Your task to perform on an android device: Search for usb-c to usb-b on amazon, select the first entry, and add it to the cart. Image 0: 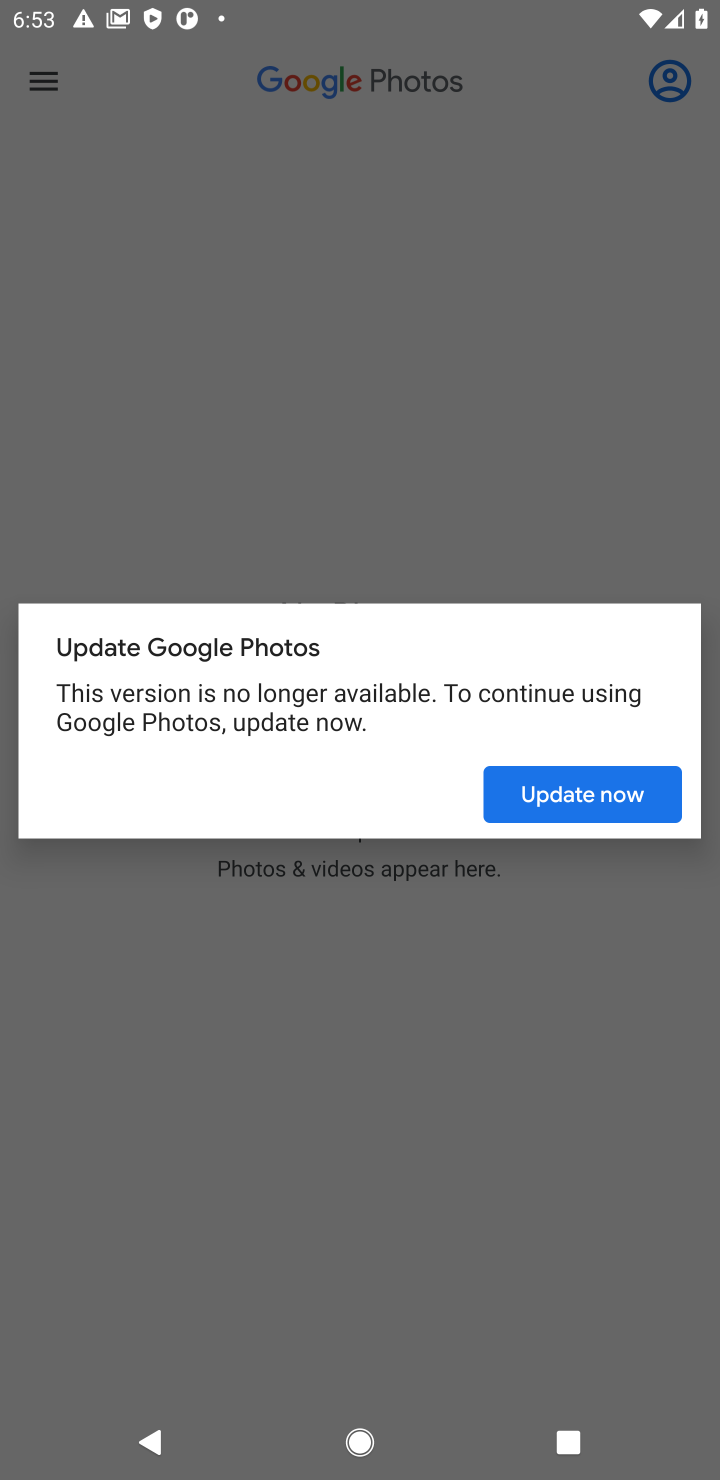
Step 0: press home button
Your task to perform on an android device: Search for usb-c to usb-b on amazon, select the first entry, and add it to the cart. Image 1: 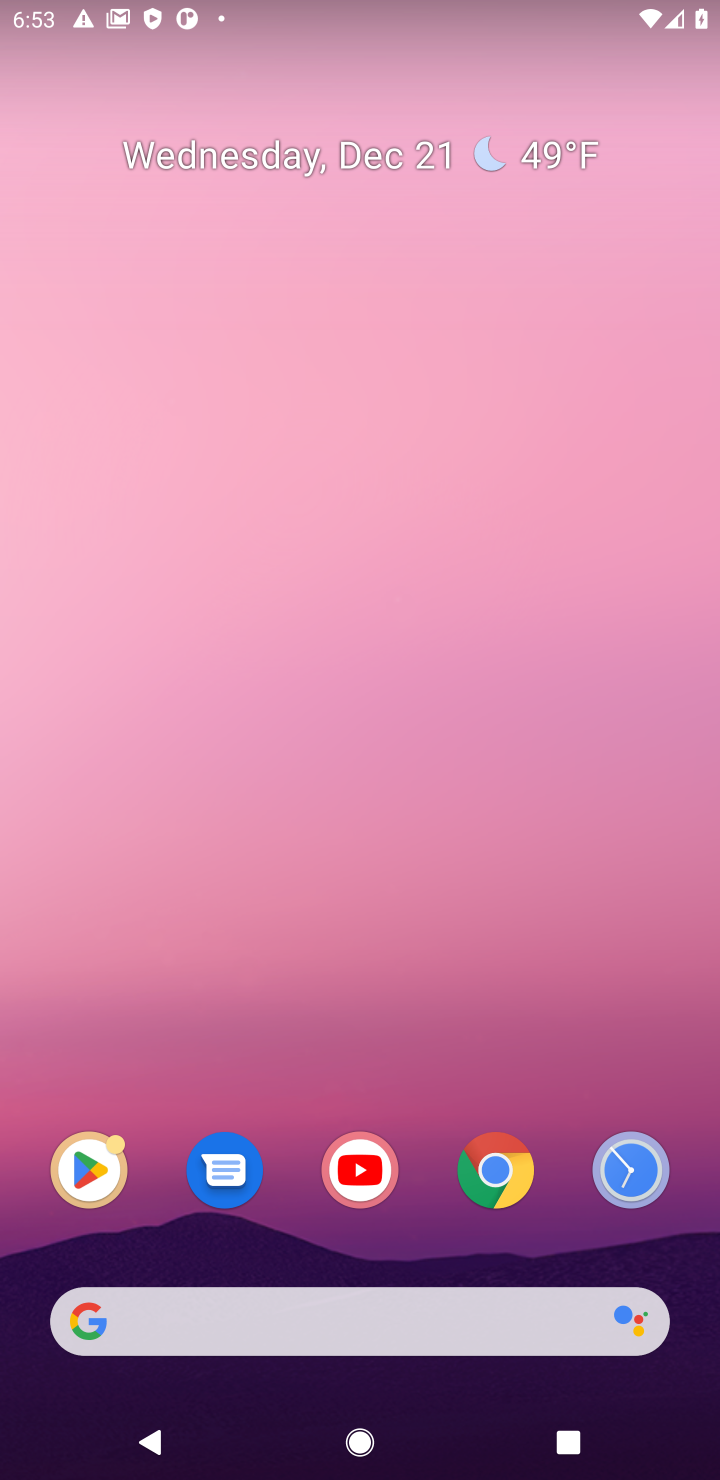
Step 1: click (497, 1176)
Your task to perform on an android device: Search for usb-c to usb-b on amazon, select the first entry, and add it to the cart. Image 2: 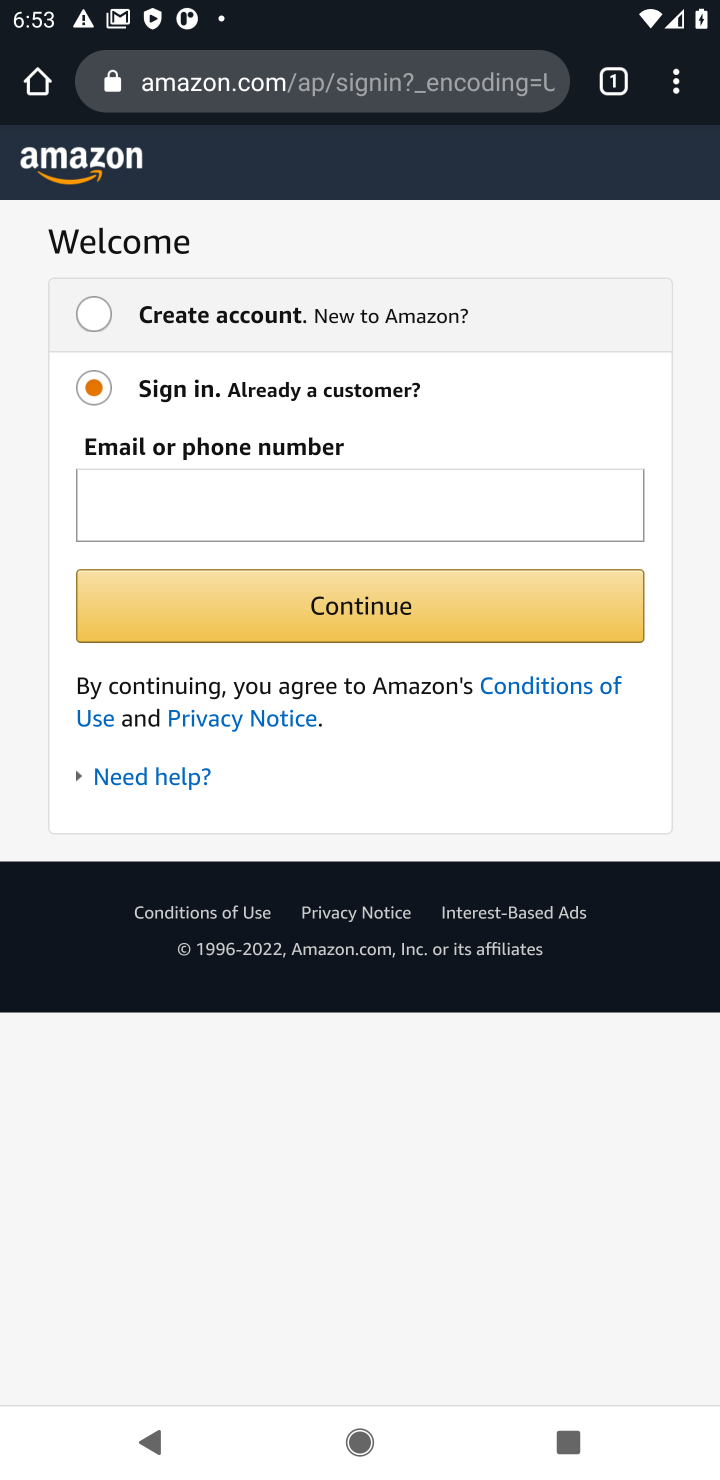
Step 2: click (81, 157)
Your task to perform on an android device: Search for usb-c to usb-b on amazon, select the first entry, and add it to the cart. Image 3: 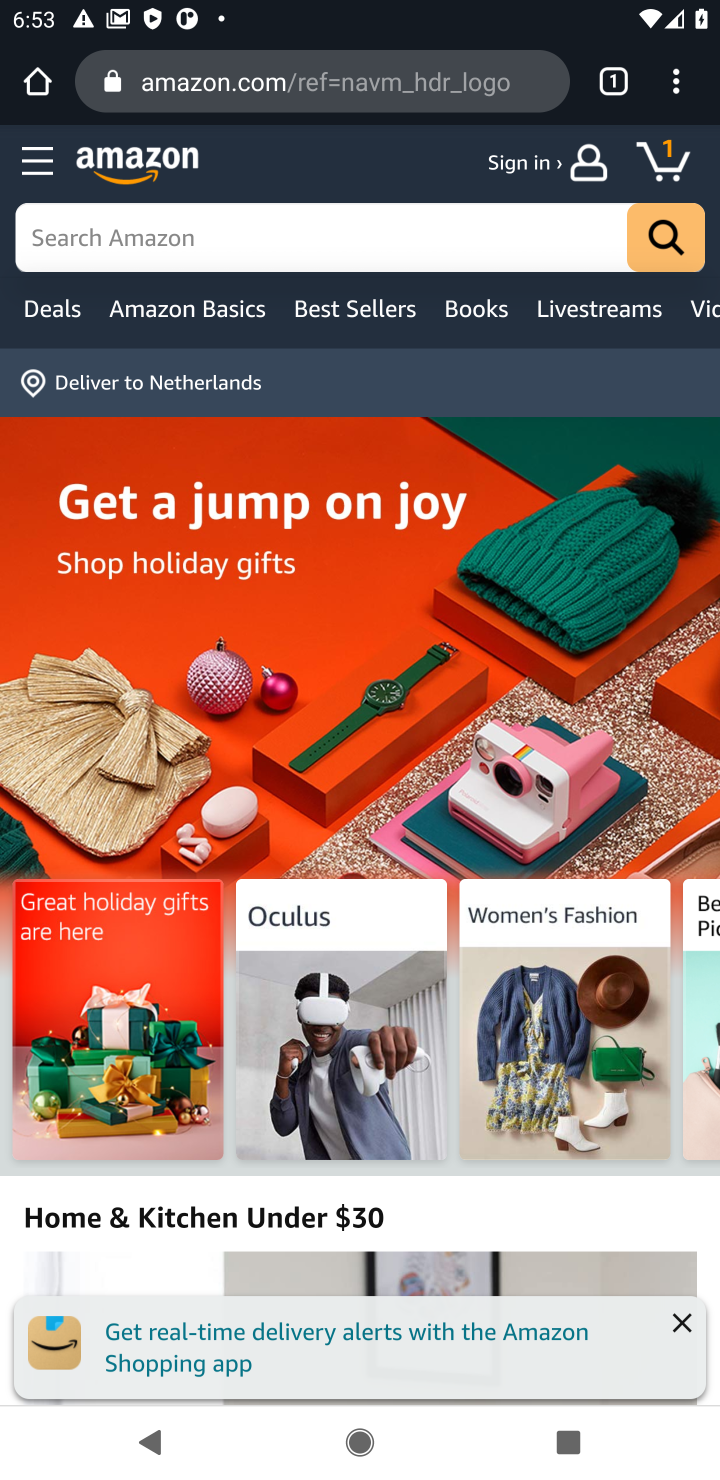
Step 3: click (356, 236)
Your task to perform on an android device: Search for usb-c to usb-b on amazon, select the first entry, and add it to the cart. Image 4: 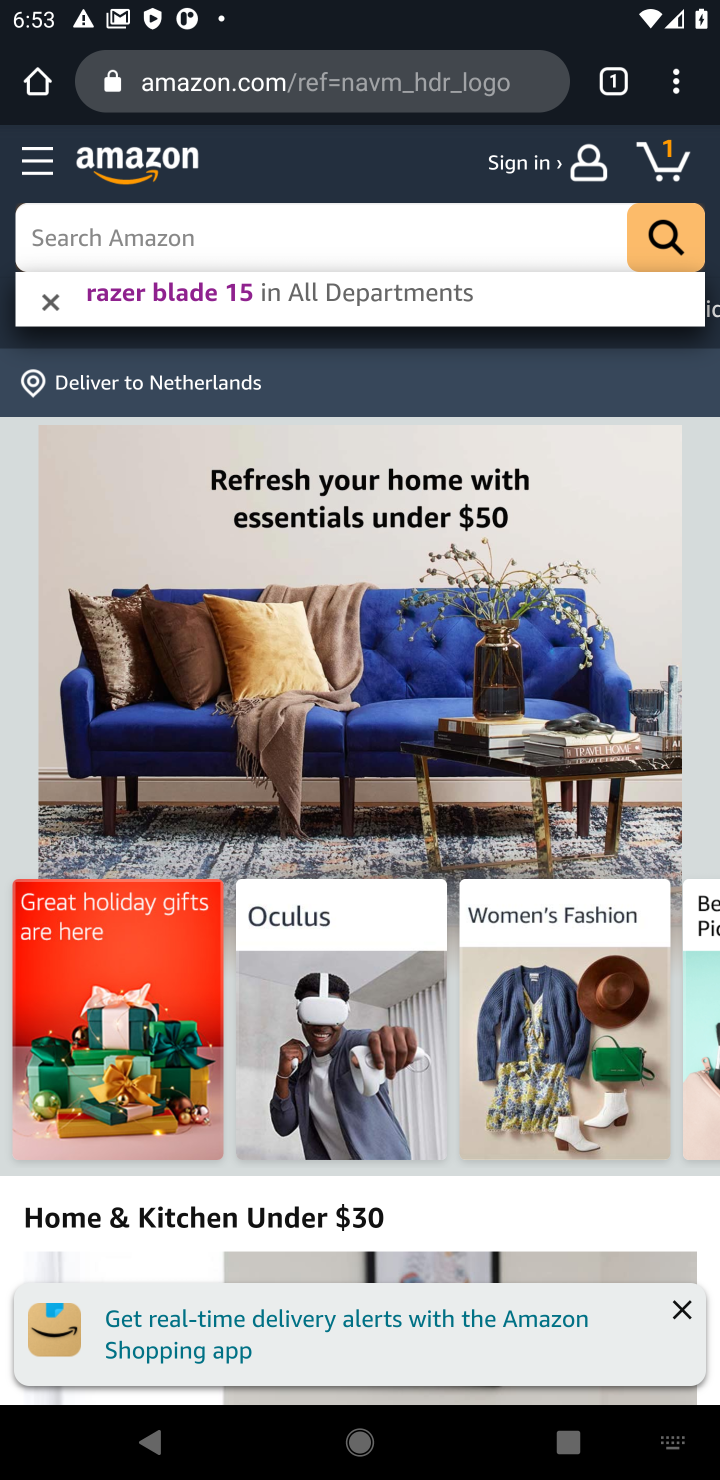
Step 4: type "usb-c to usb-b"
Your task to perform on an android device: Search for usb-c to usb-b on amazon, select the first entry, and add it to the cart. Image 5: 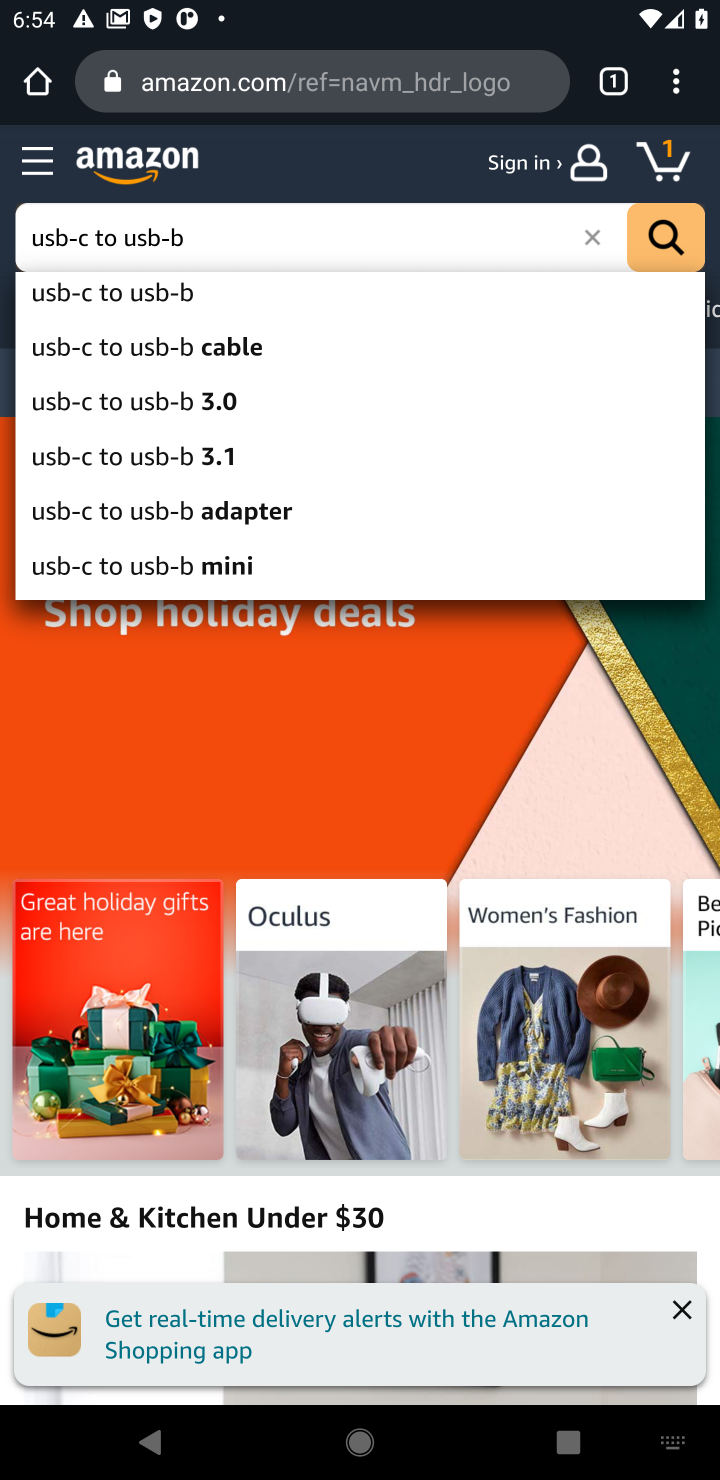
Step 5: click (186, 296)
Your task to perform on an android device: Search for usb-c to usb-b on amazon, select the first entry, and add it to the cart. Image 6: 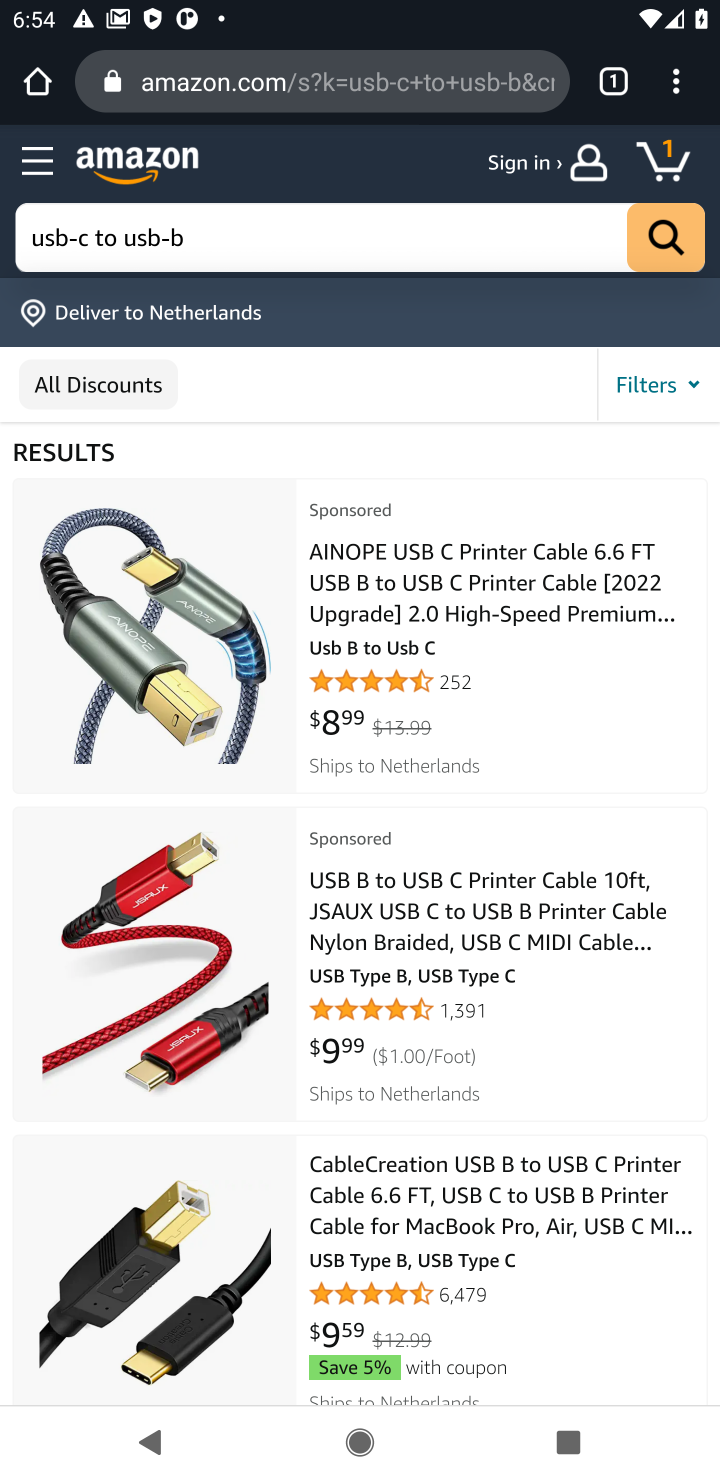
Step 6: click (509, 609)
Your task to perform on an android device: Search for usb-c to usb-b on amazon, select the first entry, and add it to the cart. Image 7: 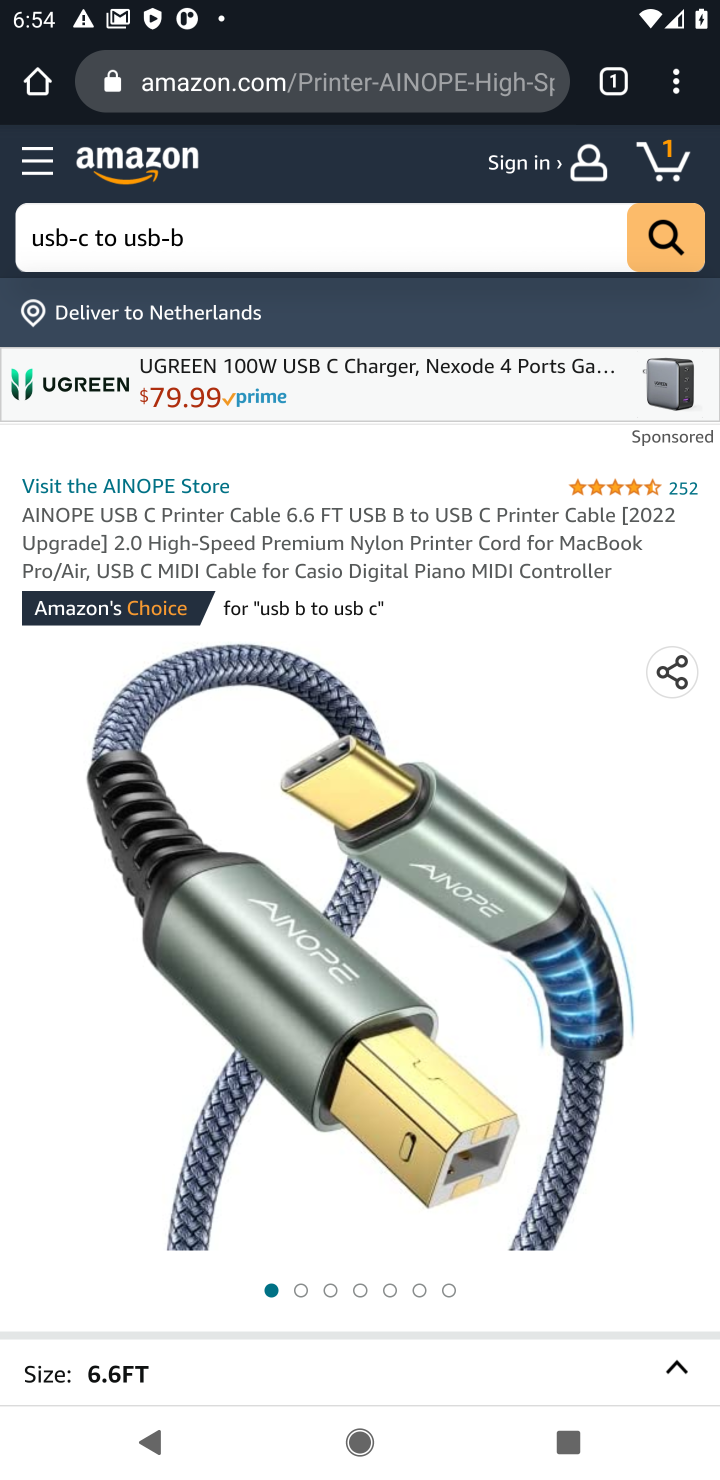
Step 7: drag from (533, 1279) to (440, 439)
Your task to perform on an android device: Search for usb-c to usb-b on amazon, select the first entry, and add it to the cart. Image 8: 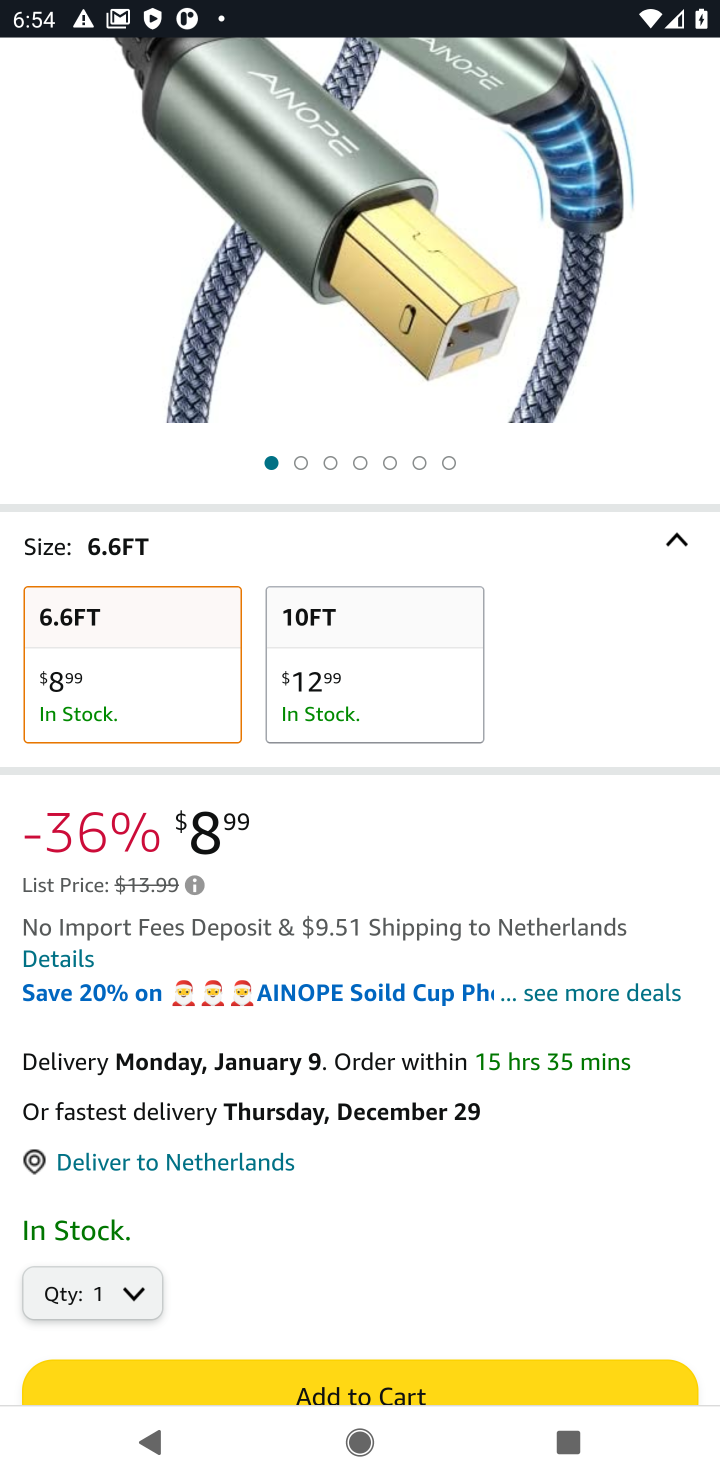
Step 8: drag from (471, 1220) to (455, 373)
Your task to perform on an android device: Search for usb-c to usb-b on amazon, select the first entry, and add it to the cart. Image 9: 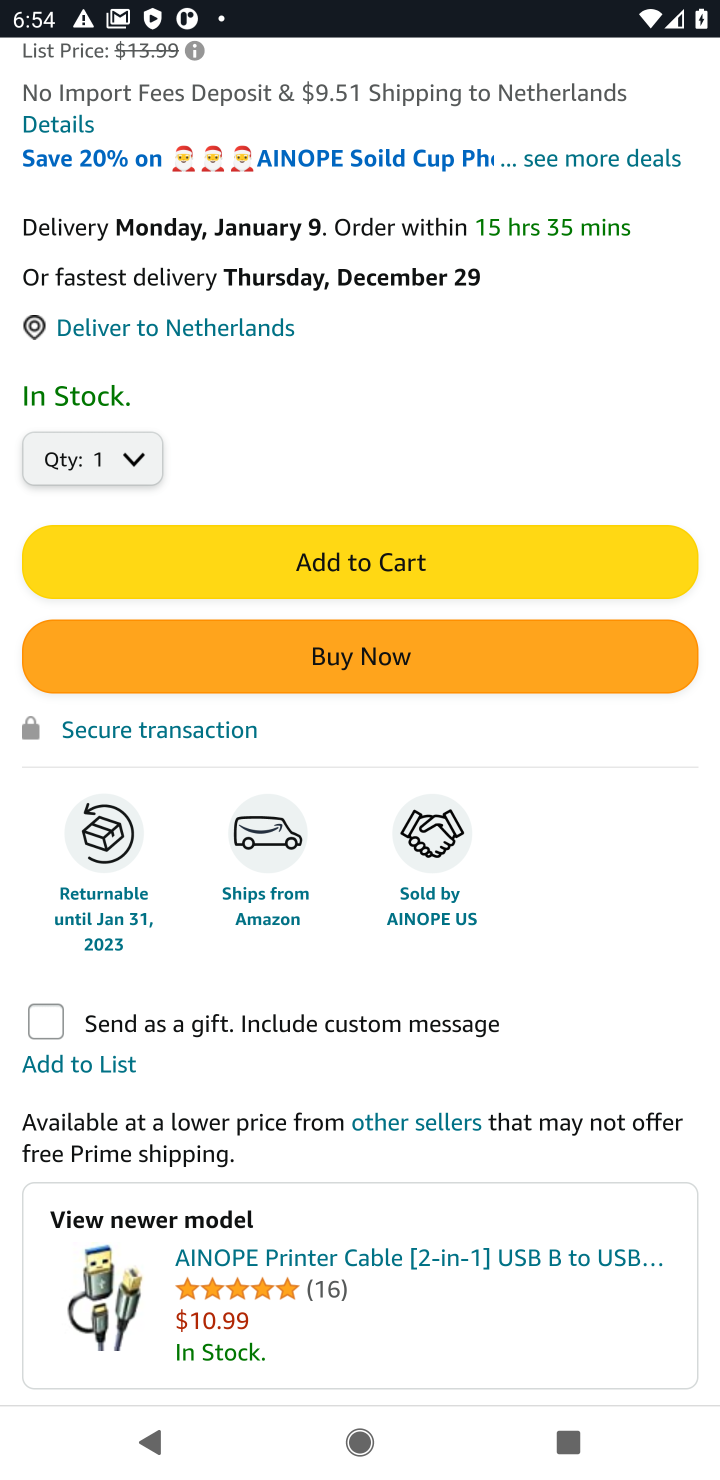
Step 9: click (369, 560)
Your task to perform on an android device: Search for usb-c to usb-b on amazon, select the first entry, and add it to the cart. Image 10: 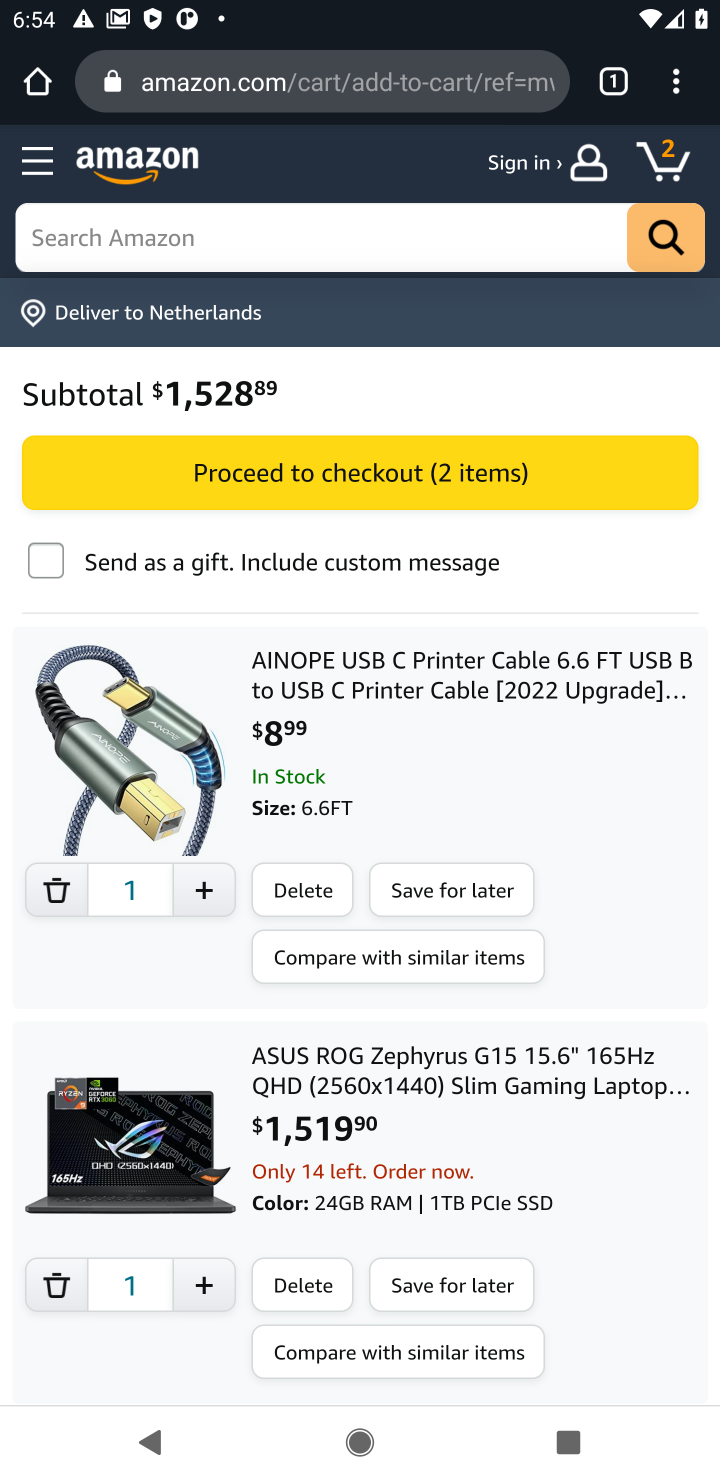
Step 10: task complete